Your task to perform on an android device: Go to Android settings Image 0: 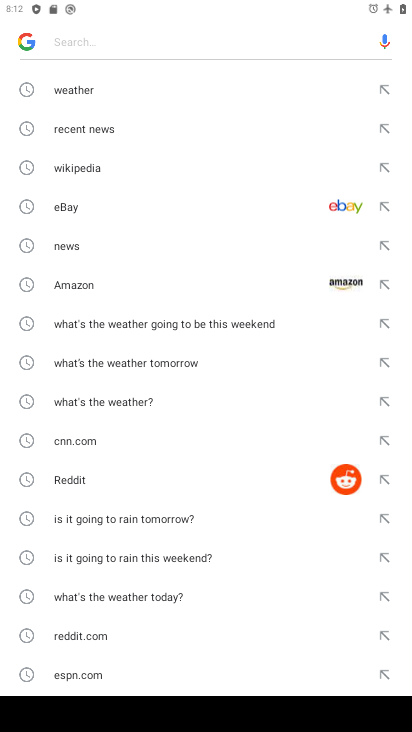
Step 0: press back button
Your task to perform on an android device: Go to Android settings Image 1: 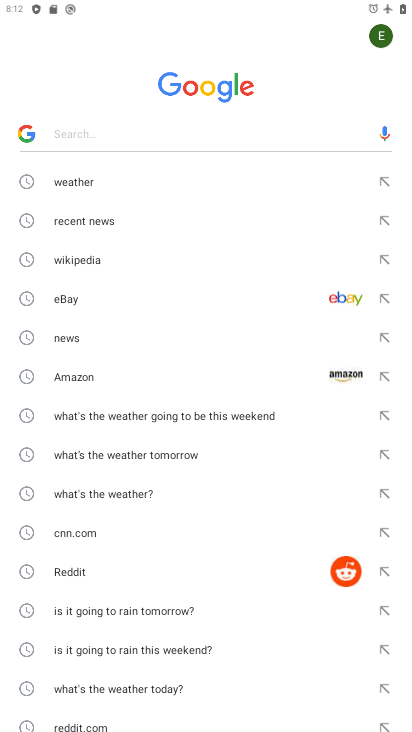
Step 1: press back button
Your task to perform on an android device: Go to Android settings Image 2: 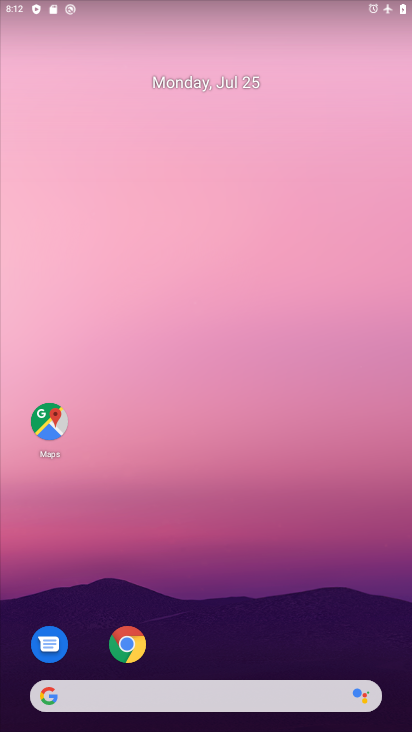
Step 2: drag from (171, 519) to (171, 121)
Your task to perform on an android device: Go to Android settings Image 3: 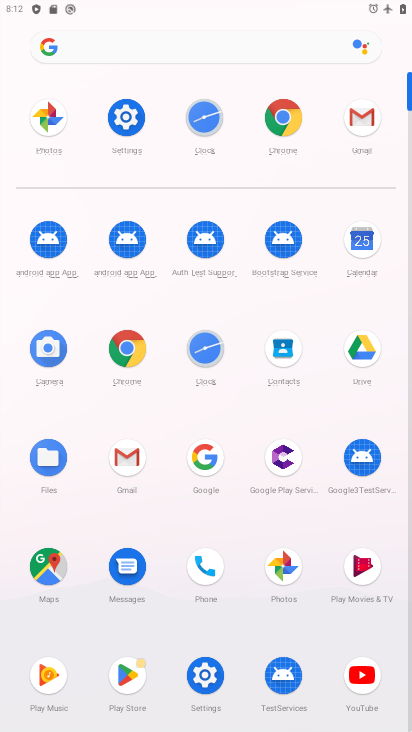
Step 3: click (198, 670)
Your task to perform on an android device: Go to Android settings Image 4: 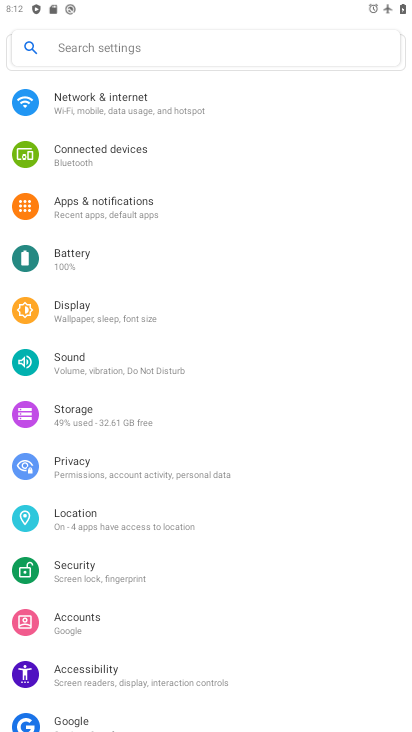
Step 4: drag from (202, 571) to (301, 28)
Your task to perform on an android device: Go to Android settings Image 5: 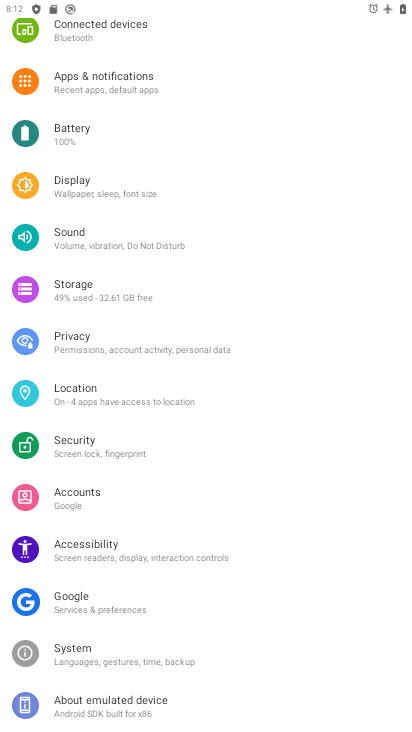
Step 5: click (65, 708)
Your task to perform on an android device: Go to Android settings Image 6: 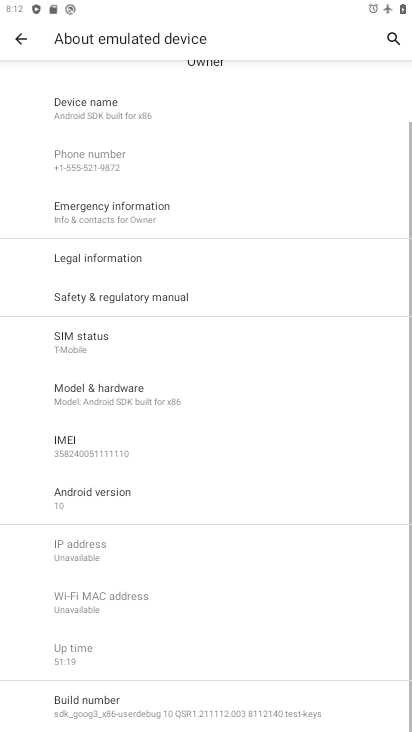
Step 6: click (116, 501)
Your task to perform on an android device: Go to Android settings Image 7: 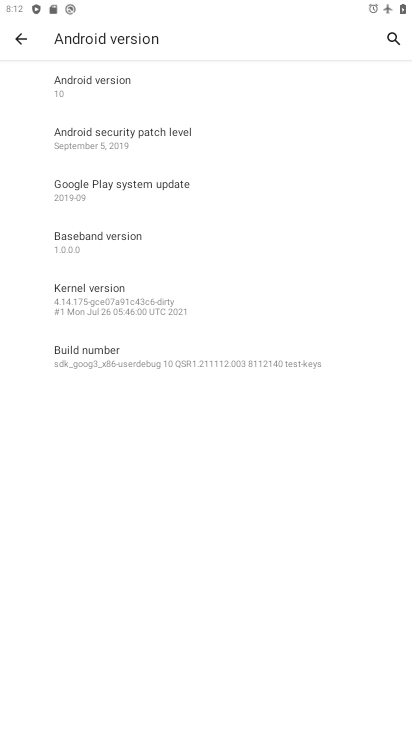
Step 7: task complete